Your task to perform on an android device: change the clock style Image 0: 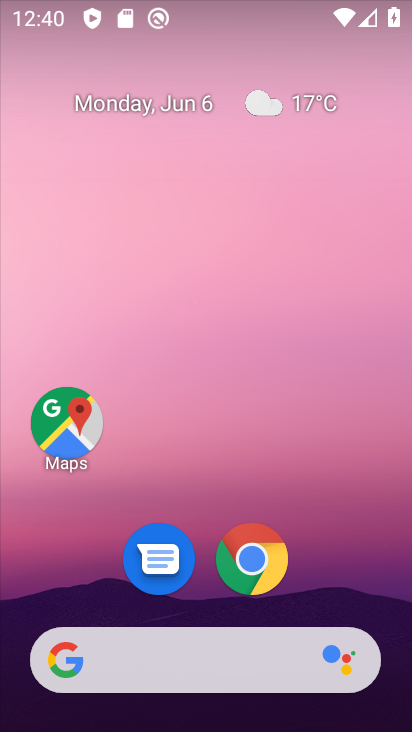
Step 0: drag from (229, 625) to (255, 130)
Your task to perform on an android device: change the clock style Image 1: 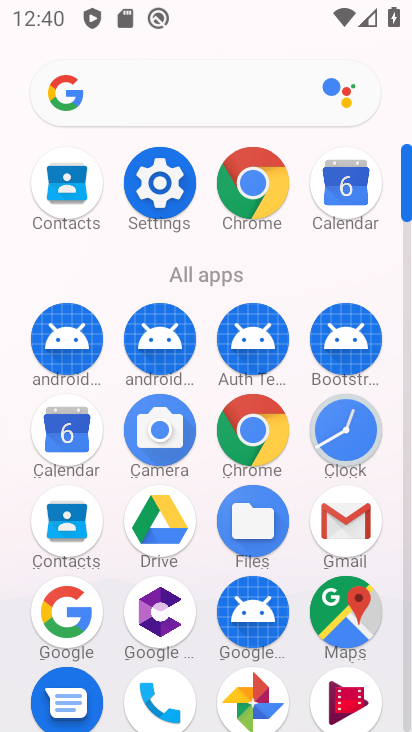
Step 1: click (356, 446)
Your task to perform on an android device: change the clock style Image 2: 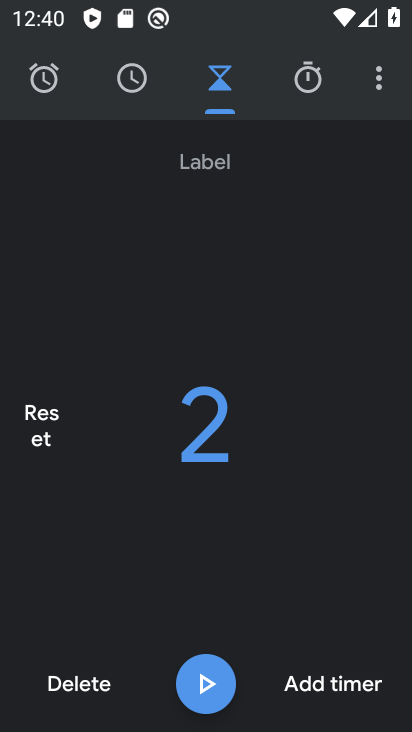
Step 2: click (384, 96)
Your task to perform on an android device: change the clock style Image 3: 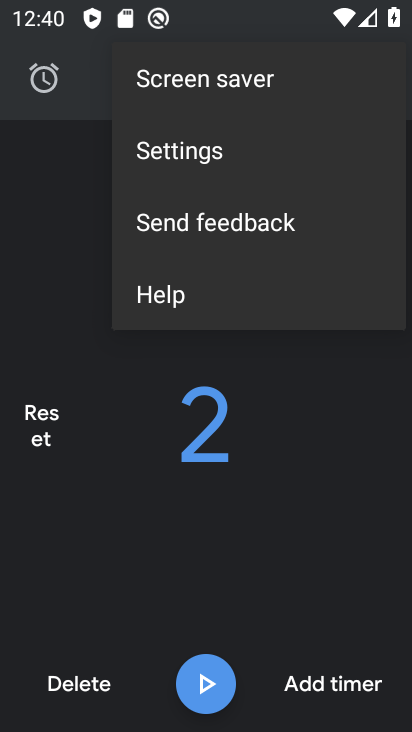
Step 3: click (229, 144)
Your task to perform on an android device: change the clock style Image 4: 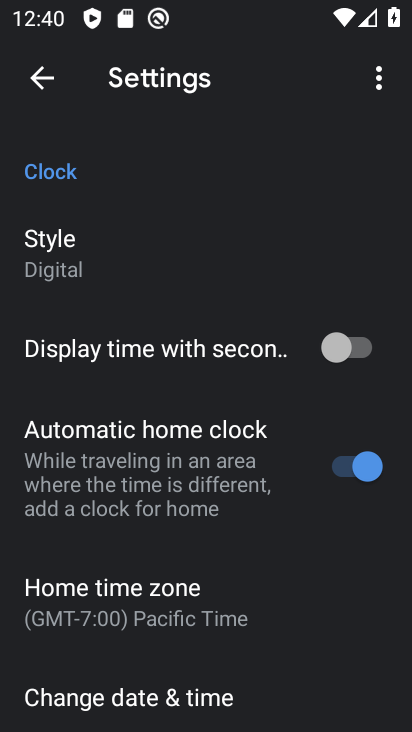
Step 4: click (174, 258)
Your task to perform on an android device: change the clock style Image 5: 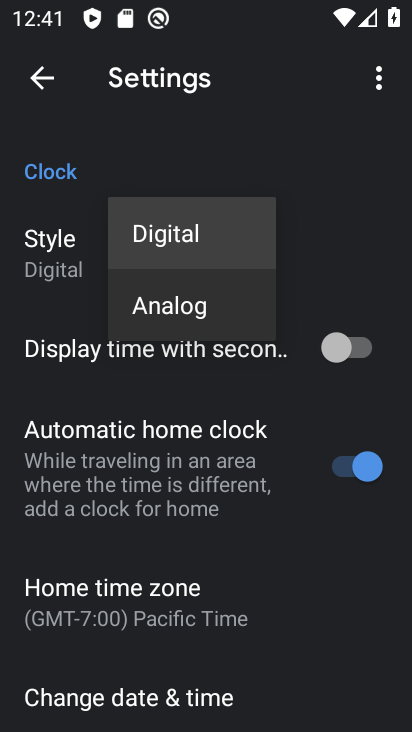
Step 5: click (194, 303)
Your task to perform on an android device: change the clock style Image 6: 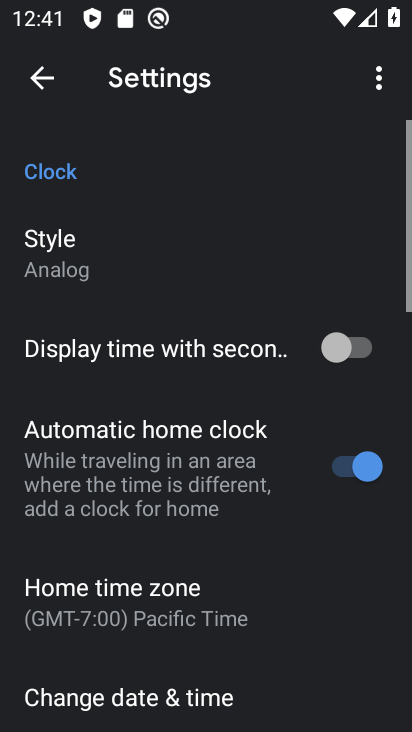
Step 6: task complete